Your task to perform on an android device: Open display settings Image 0: 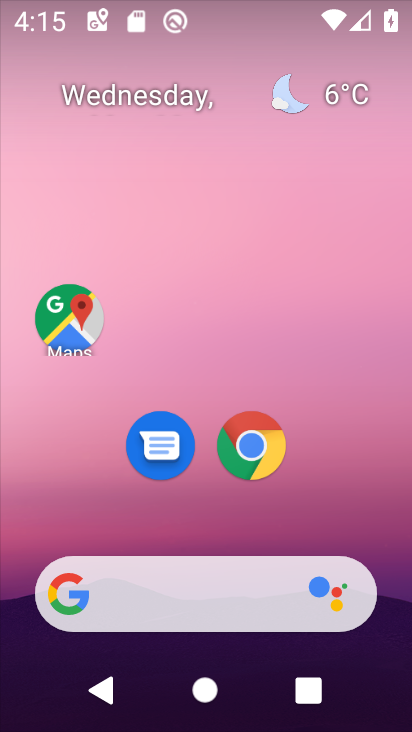
Step 0: drag from (217, 525) to (185, 3)
Your task to perform on an android device: Open display settings Image 1: 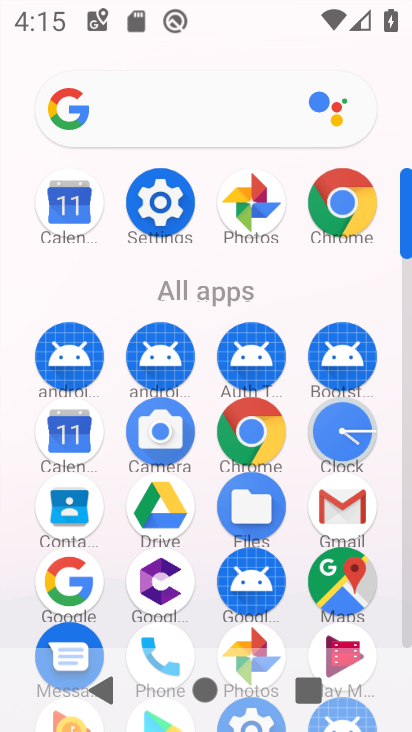
Step 1: click (150, 214)
Your task to perform on an android device: Open display settings Image 2: 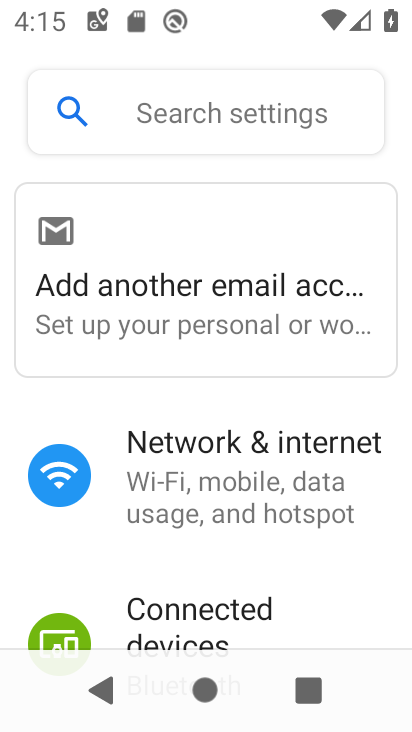
Step 2: drag from (210, 564) to (246, 97)
Your task to perform on an android device: Open display settings Image 3: 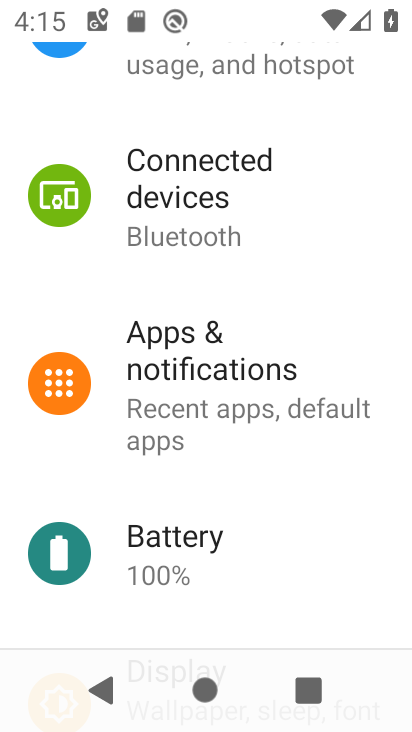
Step 3: drag from (227, 561) to (239, 124)
Your task to perform on an android device: Open display settings Image 4: 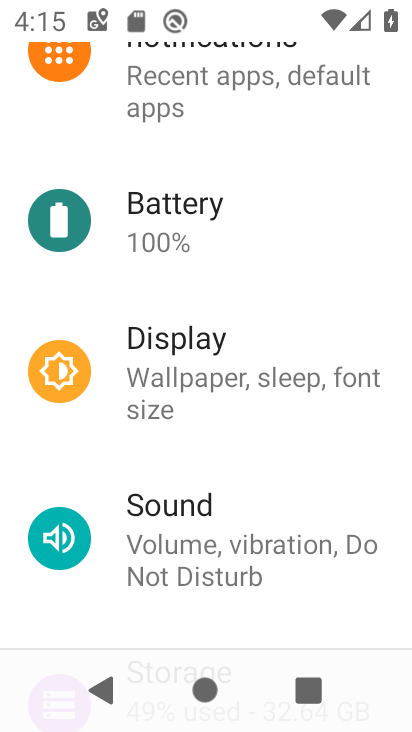
Step 4: click (182, 399)
Your task to perform on an android device: Open display settings Image 5: 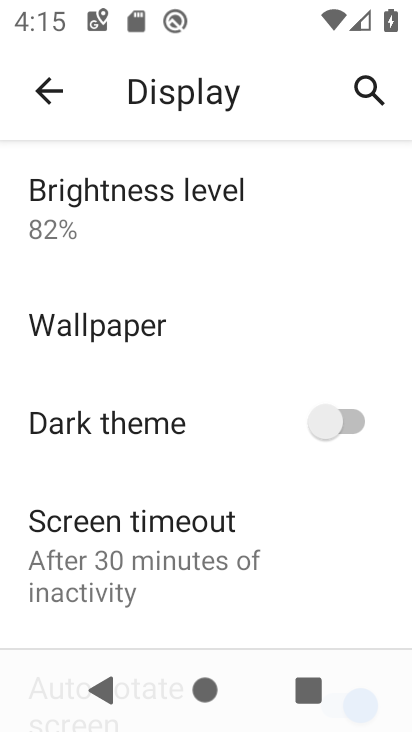
Step 5: task complete